Your task to perform on an android device: set the timer Image 0: 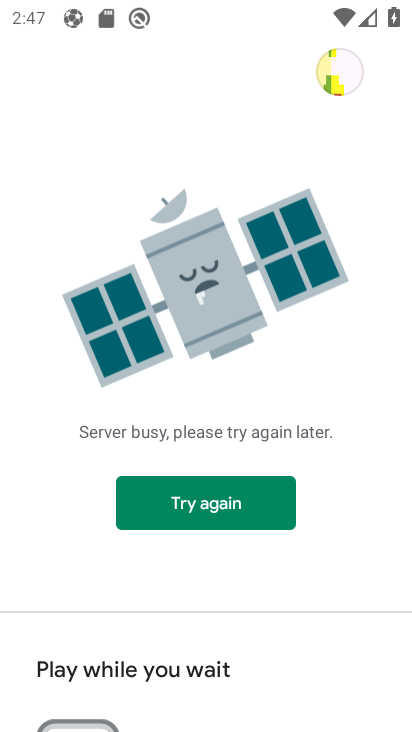
Step 0: press home button
Your task to perform on an android device: set the timer Image 1: 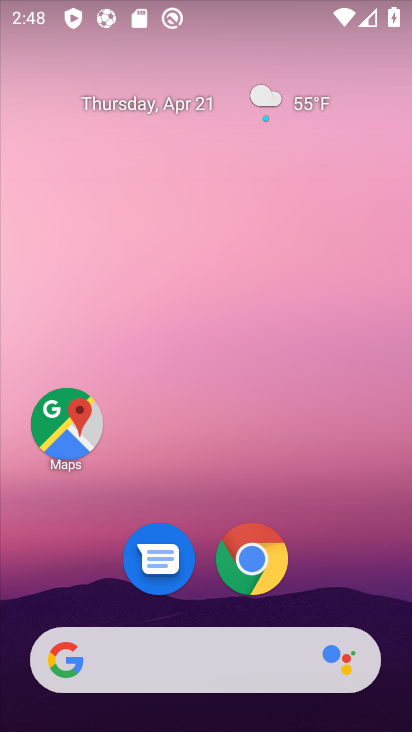
Step 1: drag from (370, 548) to (315, 144)
Your task to perform on an android device: set the timer Image 2: 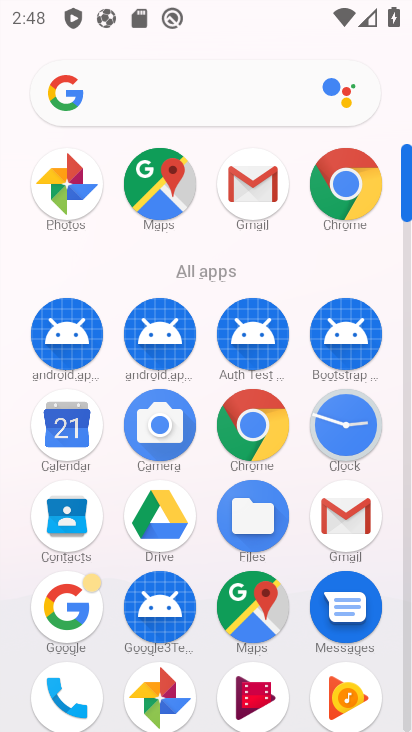
Step 2: click (329, 415)
Your task to perform on an android device: set the timer Image 3: 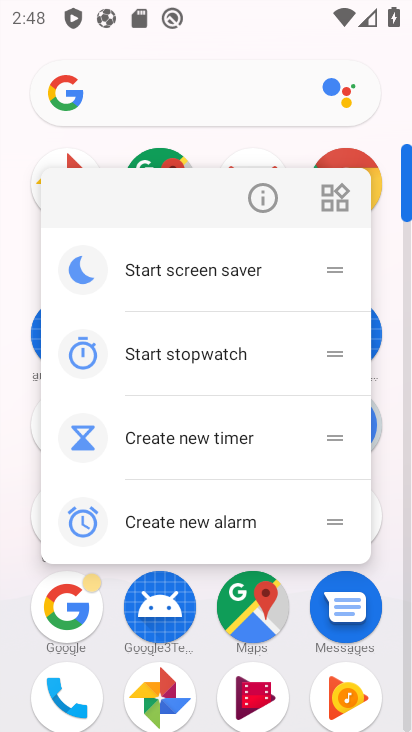
Step 3: click (390, 540)
Your task to perform on an android device: set the timer Image 4: 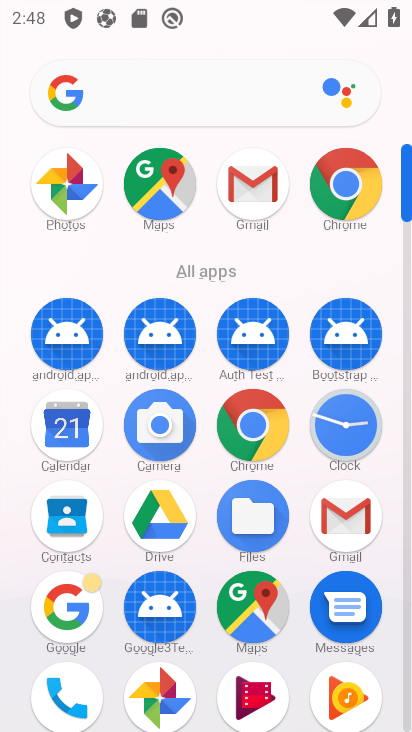
Step 4: click (345, 422)
Your task to perform on an android device: set the timer Image 5: 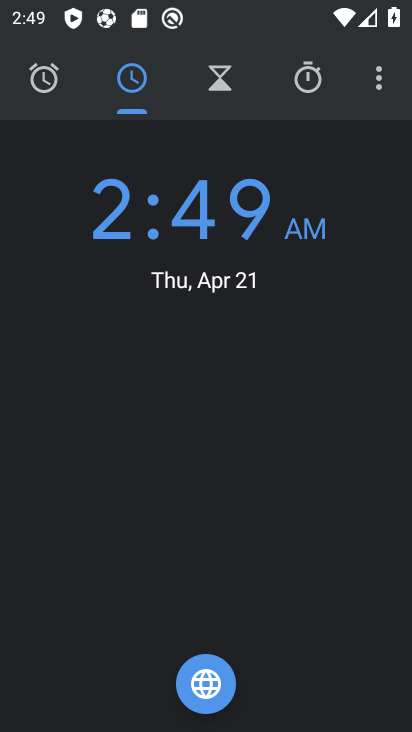
Step 5: click (318, 80)
Your task to perform on an android device: set the timer Image 6: 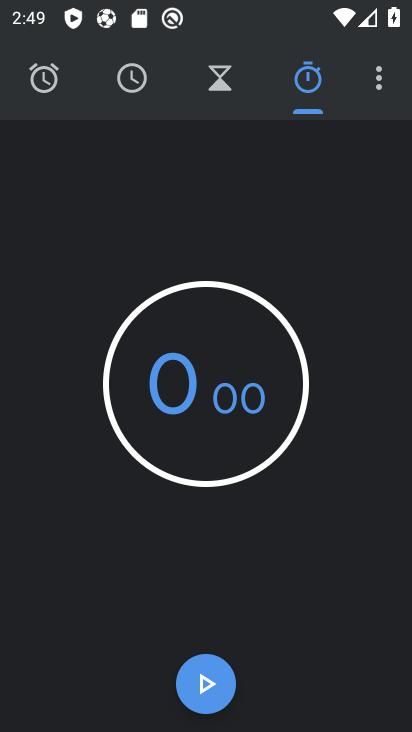
Step 6: click (215, 74)
Your task to perform on an android device: set the timer Image 7: 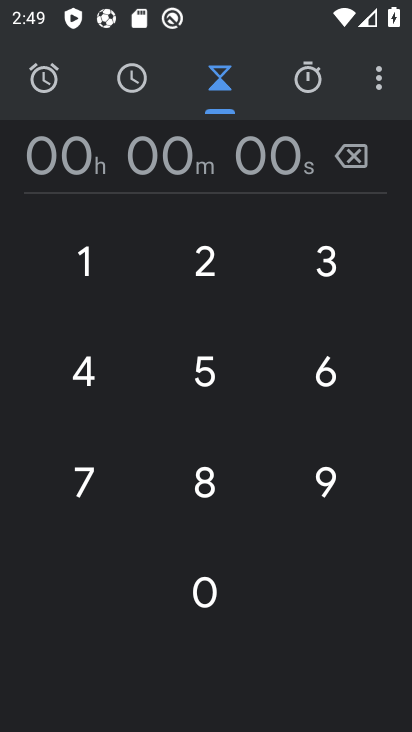
Step 7: click (321, 270)
Your task to perform on an android device: set the timer Image 8: 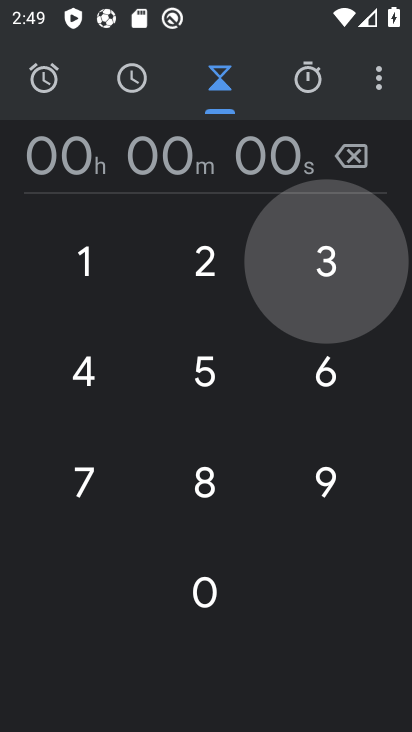
Step 8: click (208, 258)
Your task to perform on an android device: set the timer Image 9: 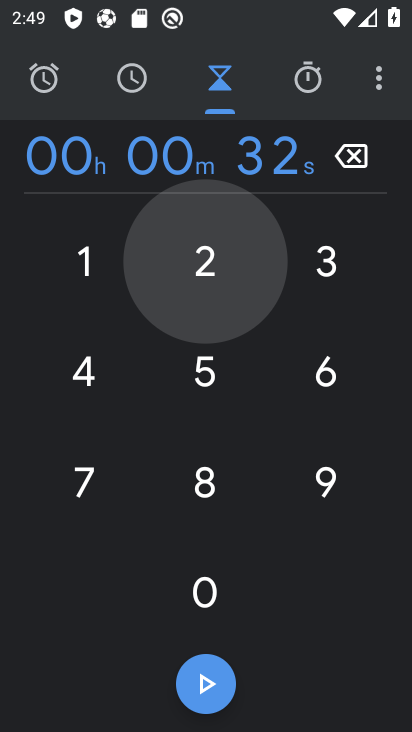
Step 9: click (200, 372)
Your task to perform on an android device: set the timer Image 10: 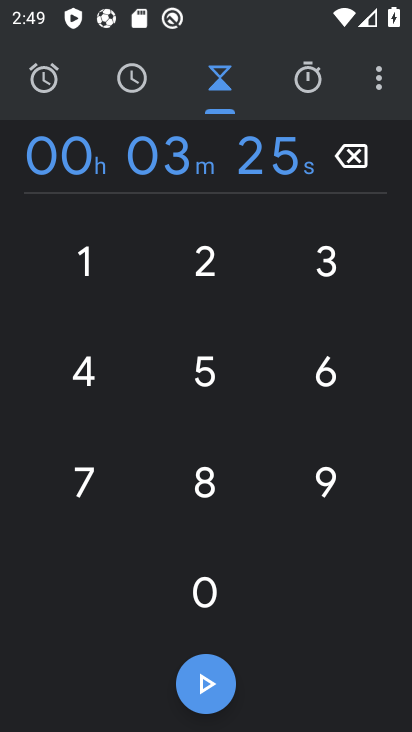
Step 10: click (326, 392)
Your task to perform on an android device: set the timer Image 11: 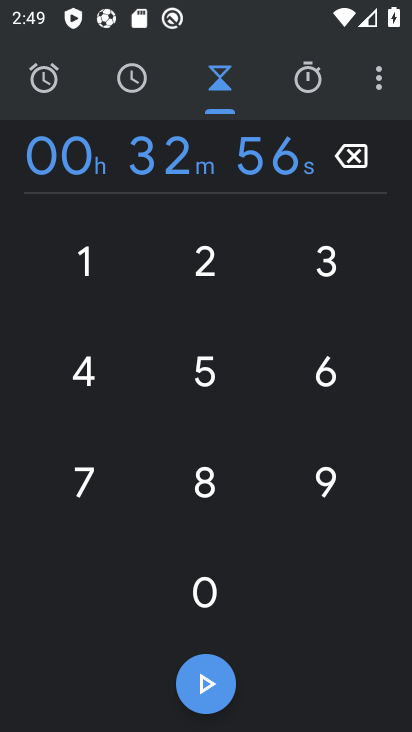
Step 11: task complete